Your task to perform on an android device: search for starred emails in the gmail app Image 0: 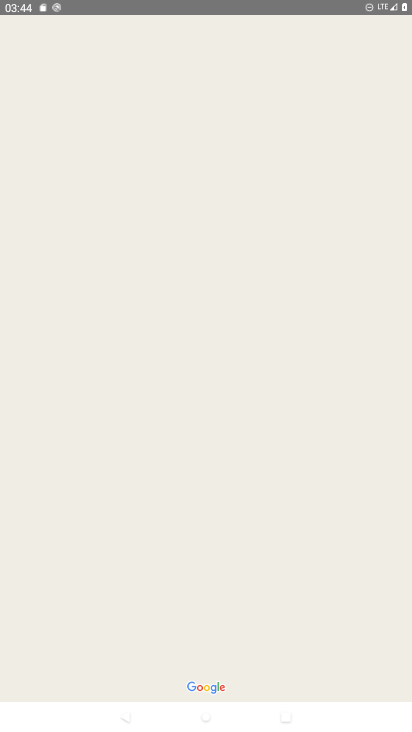
Step 0: press home button
Your task to perform on an android device: search for starred emails in the gmail app Image 1: 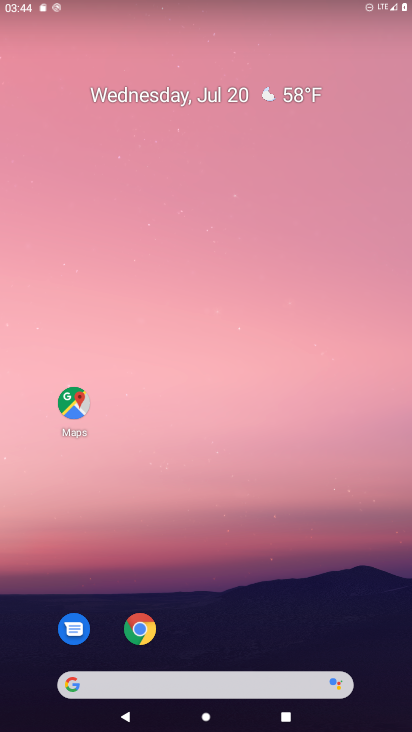
Step 1: drag from (252, 604) to (237, 180)
Your task to perform on an android device: search for starred emails in the gmail app Image 2: 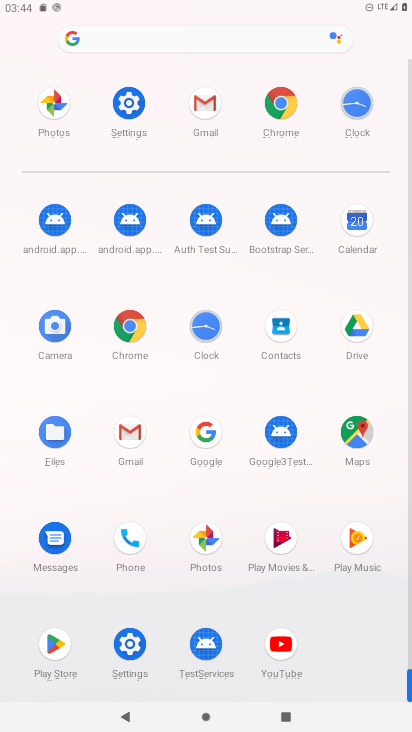
Step 2: click (114, 427)
Your task to perform on an android device: search for starred emails in the gmail app Image 3: 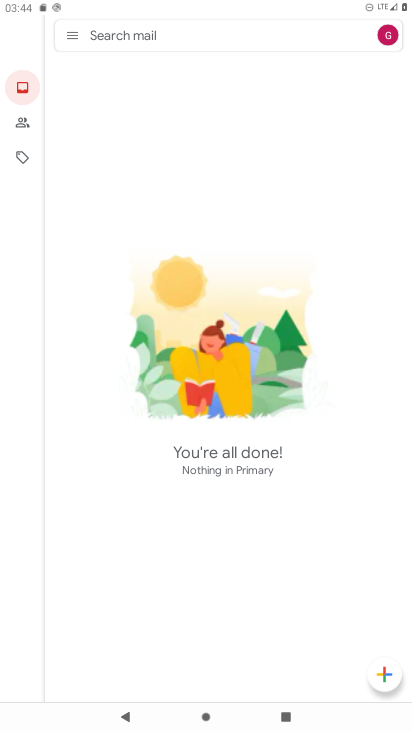
Step 3: click (74, 40)
Your task to perform on an android device: search for starred emails in the gmail app Image 4: 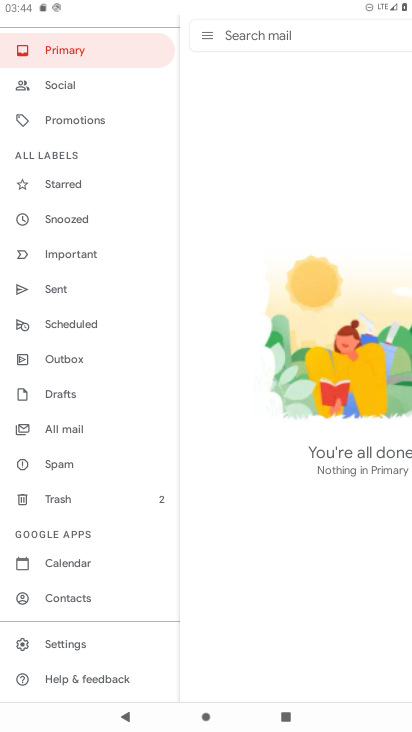
Step 4: click (43, 182)
Your task to perform on an android device: search for starred emails in the gmail app Image 5: 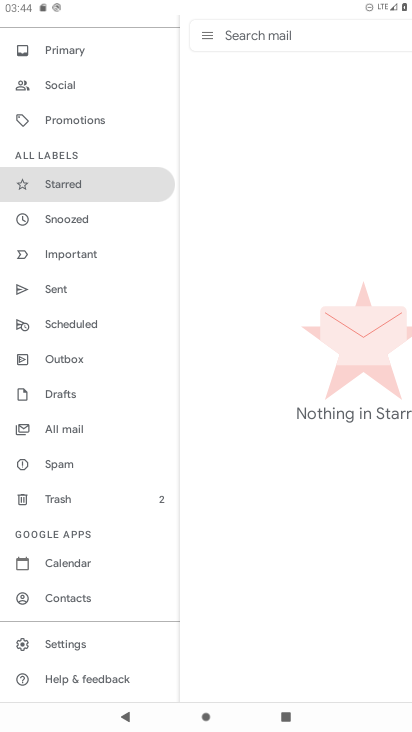
Step 5: task complete